Your task to perform on an android device: snooze an email in the gmail app Image 0: 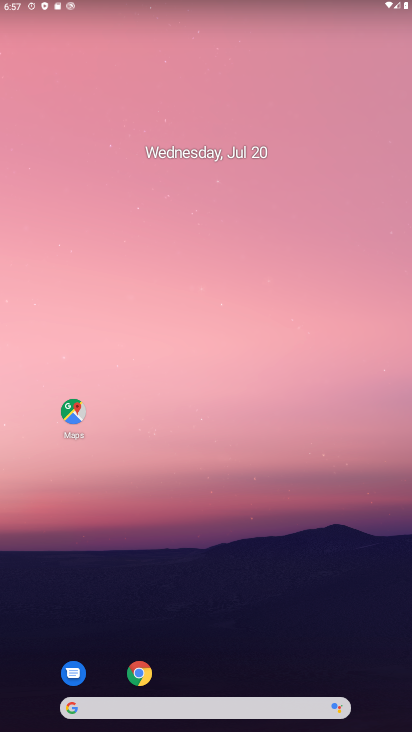
Step 0: drag from (377, 648) to (198, 0)
Your task to perform on an android device: snooze an email in the gmail app Image 1: 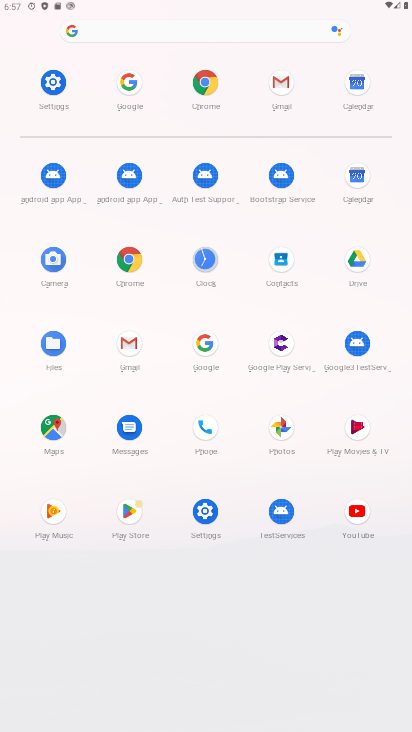
Step 1: click (129, 344)
Your task to perform on an android device: snooze an email in the gmail app Image 2: 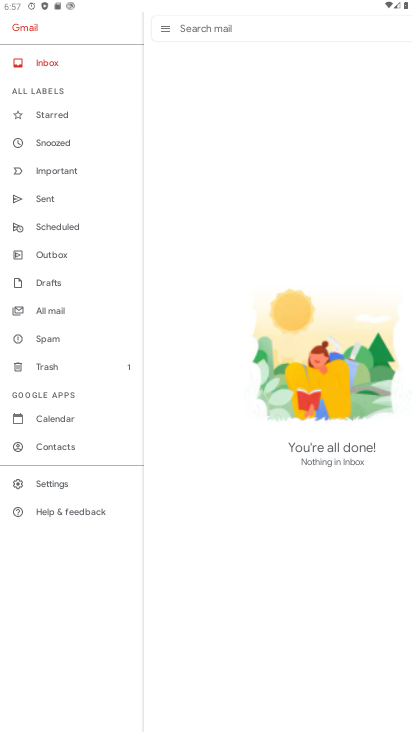
Step 2: task complete